Your task to perform on an android device: Show me productivity apps on the Play Store Image 0: 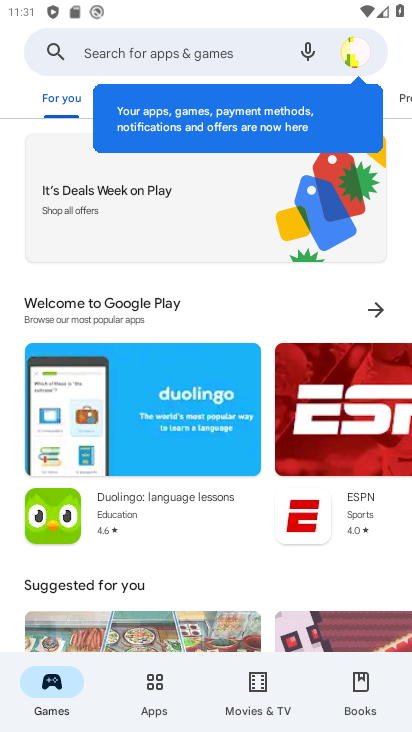
Step 0: click (174, 694)
Your task to perform on an android device: Show me productivity apps on the Play Store Image 1: 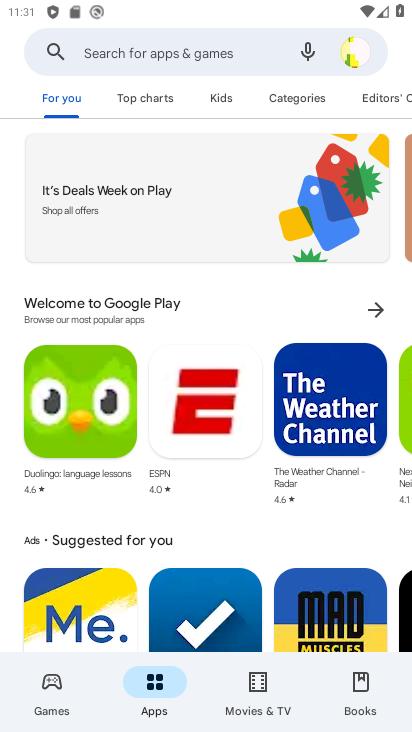
Step 1: click (296, 106)
Your task to perform on an android device: Show me productivity apps on the Play Store Image 2: 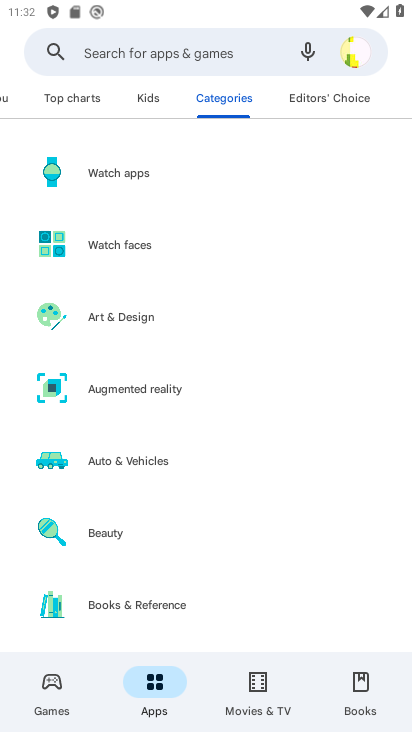
Step 2: drag from (145, 588) to (118, 76)
Your task to perform on an android device: Show me productivity apps on the Play Store Image 3: 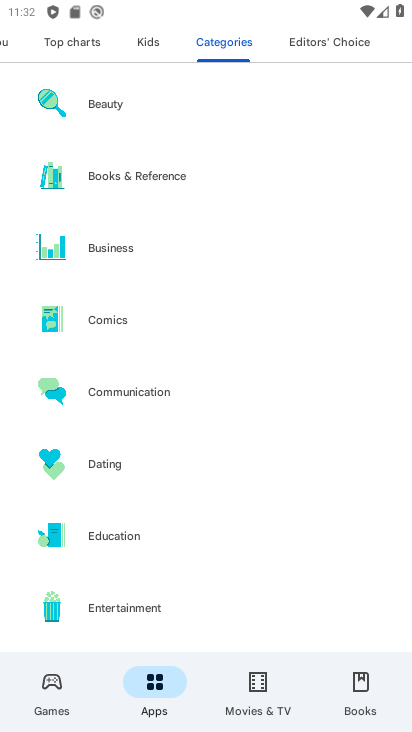
Step 3: drag from (182, 621) to (143, 268)
Your task to perform on an android device: Show me productivity apps on the Play Store Image 4: 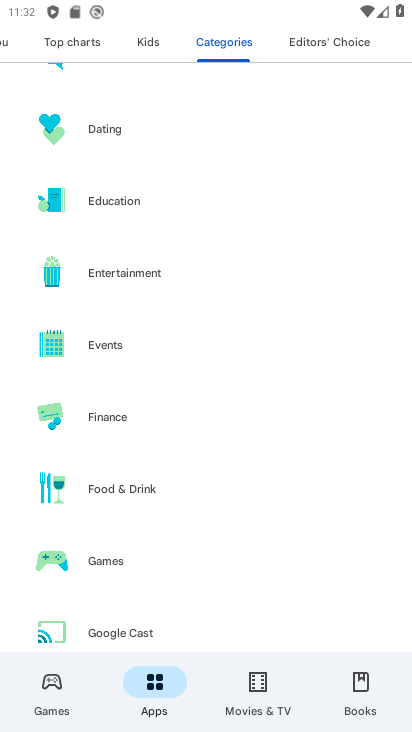
Step 4: drag from (170, 590) to (157, 12)
Your task to perform on an android device: Show me productivity apps on the Play Store Image 5: 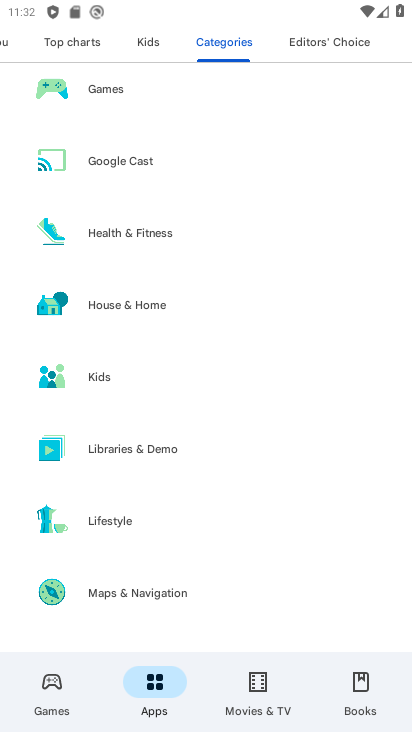
Step 5: drag from (139, 606) to (91, 267)
Your task to perform on an android device: Show me productivity apps on the Play Store Image 6: 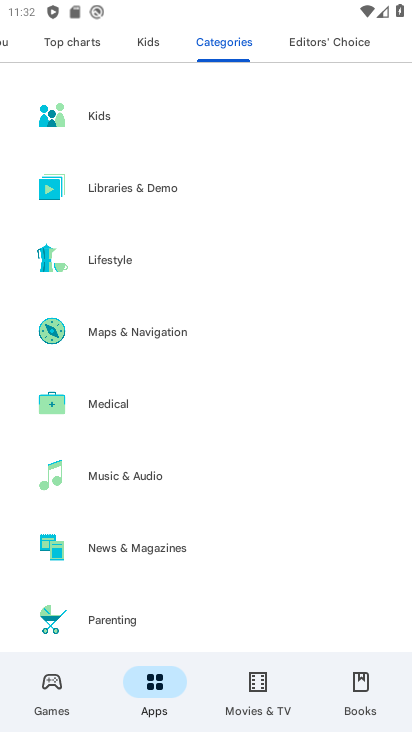
Step 6: drag from (172, 590) to (106, 33)
Your task to perform on an android device: Show me productivity apps on the Play Store Image 7: 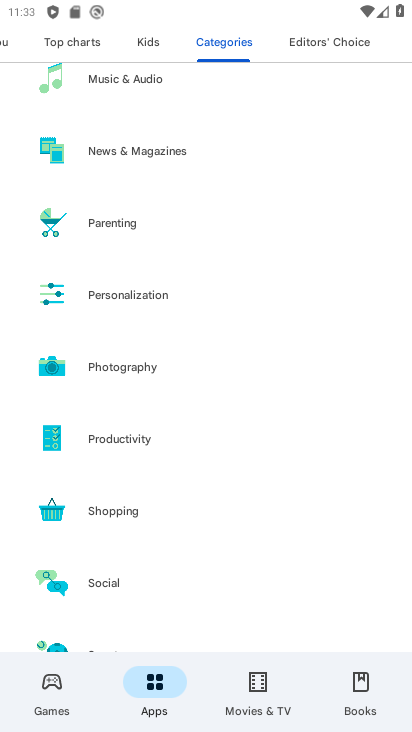
Step 7: click (139, 440)
Your task to perform on an android device: Show me productivity apps on the Play Store Image 8: 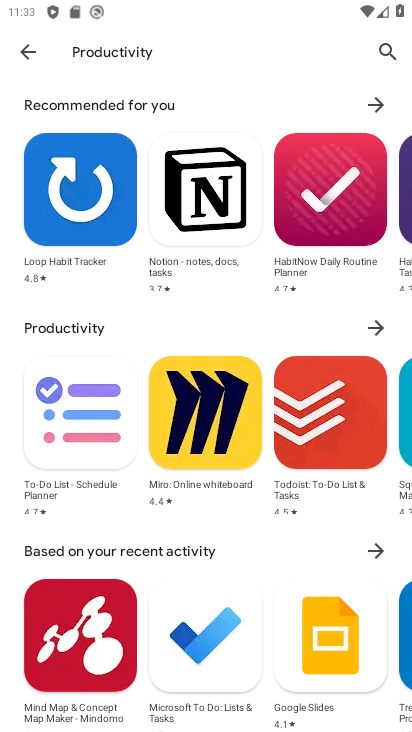
Step 8: task complete